Your task to perform on an android device: Toggle the flashlight Image 0: 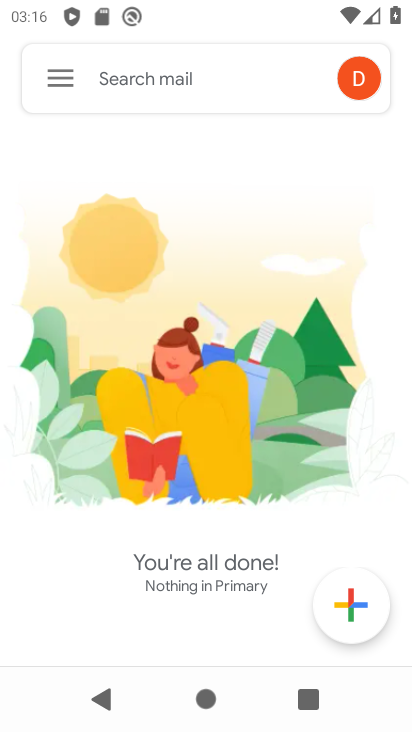
Step 0: press back button
Your task to perform on an android device: Toggle the flashlight Image 1: 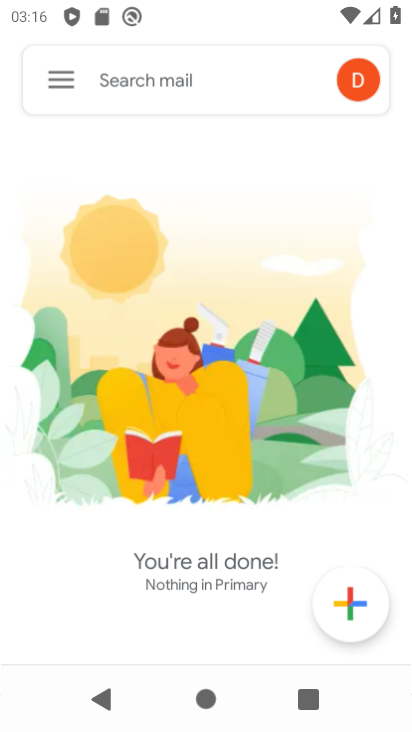
Step 1: press home button
Your task to perform on an android device: Toggle the flashlight Image 2: 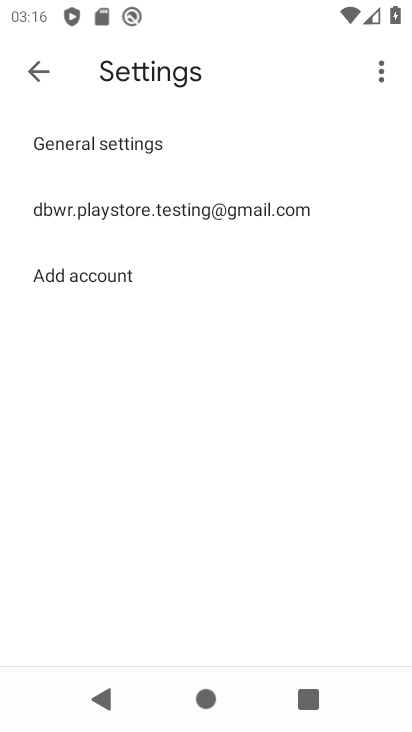
Step 2: press home button
Your task to perform on an android device: Toggle the flashlight Image 3: 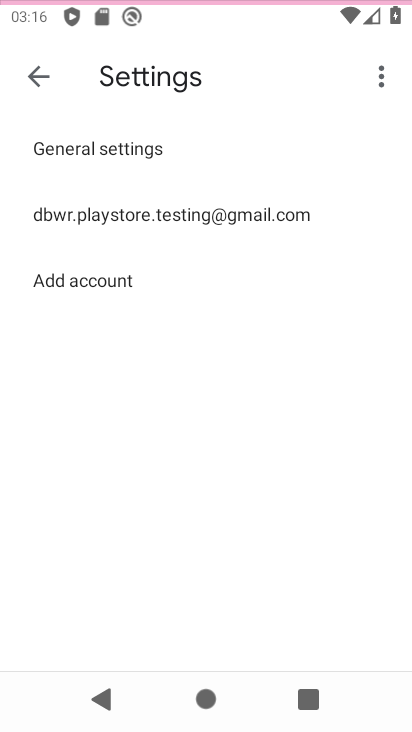
Step 3: drag from (221, 439) to (242, 137)
Your task to perform on an android device: Toggle the flashlight Image 4: 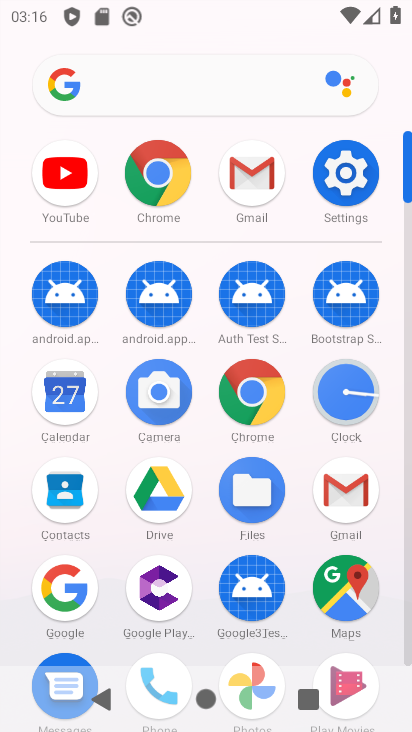
Step 4: click (366, 187)
Your task to perform on an android device: Toggle the flashlight Image 5: 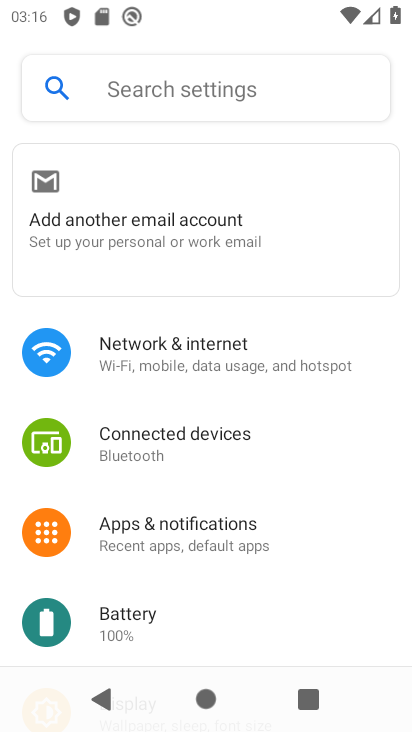
Step 5: click (169, 99)
Your task to perform on an android device: Toggle the flashlight Image 6: 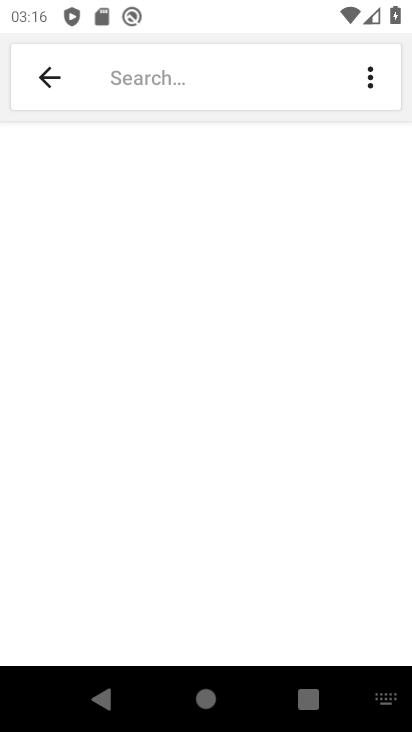
Step 6: type "flashlight"
Your task to perform on an android device: Toggle the flashlight Image 7: 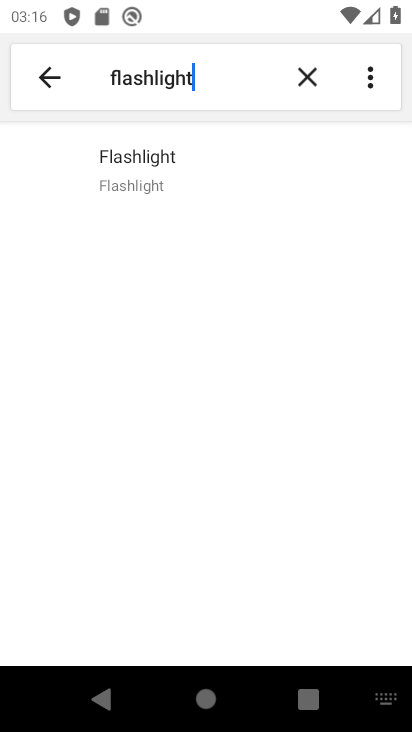
Step 7: click (124, 169)
Your task to perform on an android device: Toggle the flashlight Image 8: 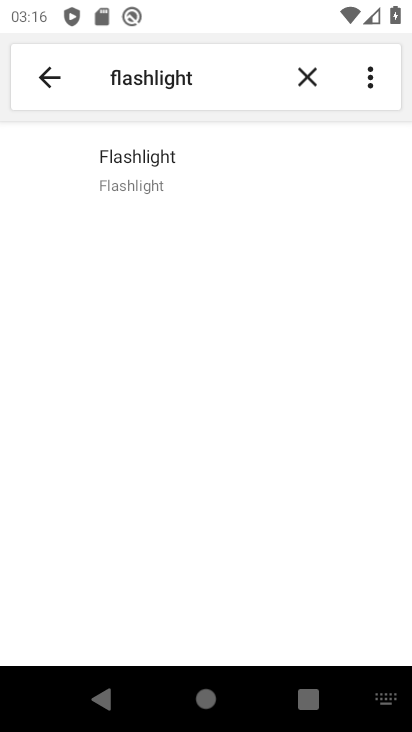
Step 8: task complete